Your task to perform on an android device: change text size in settings app Image 0: 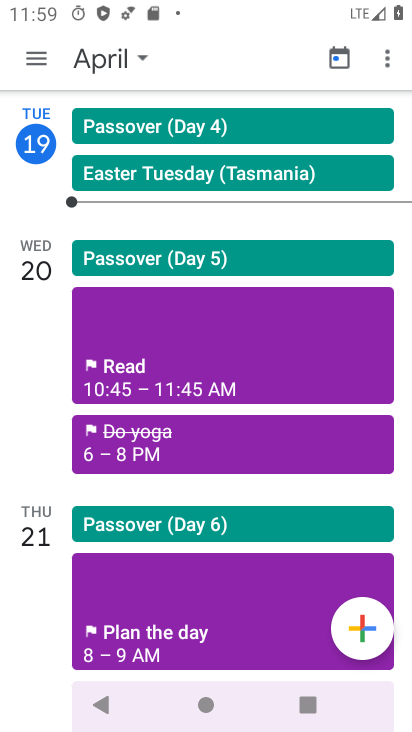
Step 0: drag from (210, 595) to (152, 30)
Your task to perform on an android device: change text size in settings app Image 1: 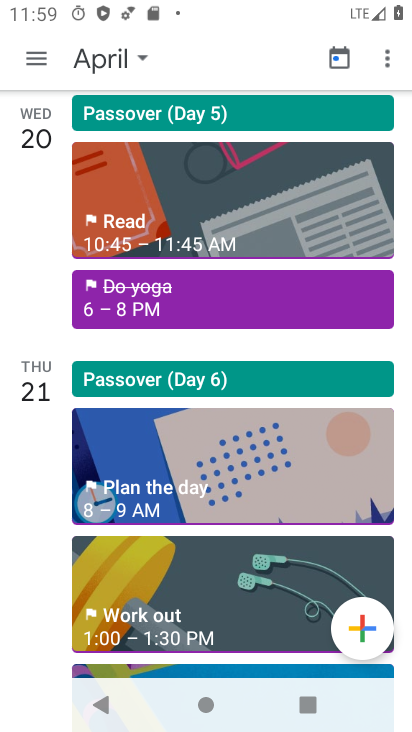
Step 1: press home button
Your task to perform on an android device: change text size in settings app Image 2: 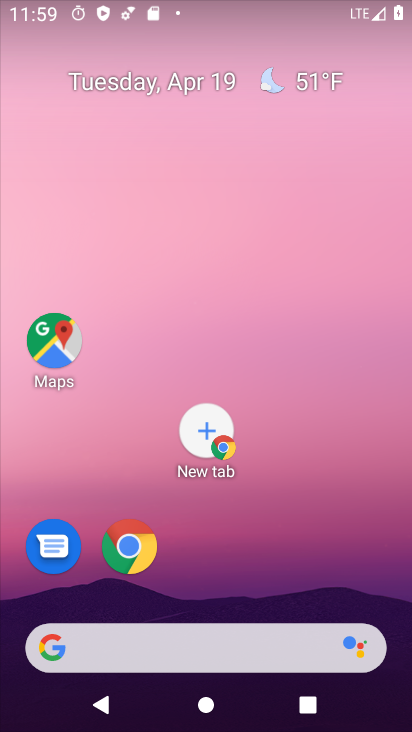
Step 2: drag from (316, 598) to (237, 14)
Your task to perform on an android device: change text size in settings app Image 3: 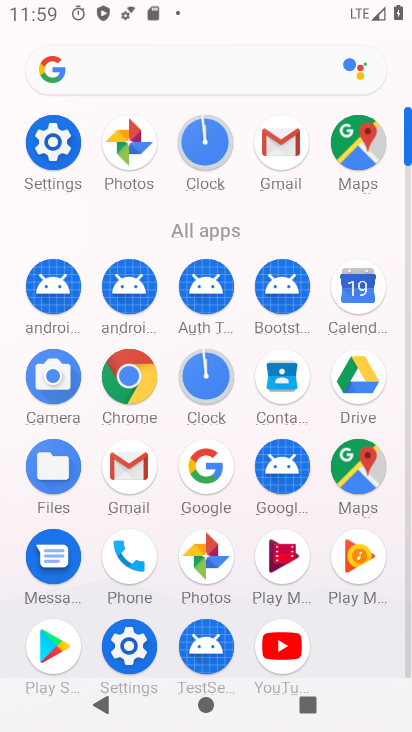
Step 3: click (69, 139)
Your task to perform on an android device: change text size in settings app Image 4: 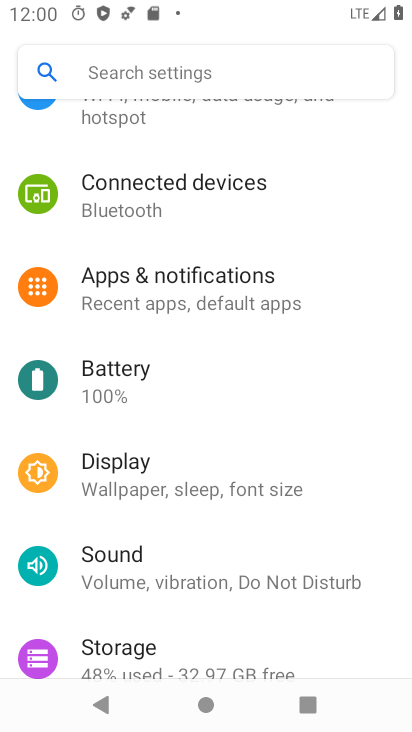
Step 4: drag from (258, 208) to (231, 729)
Your task to perform on an android device: change text size in settings app Image 5: 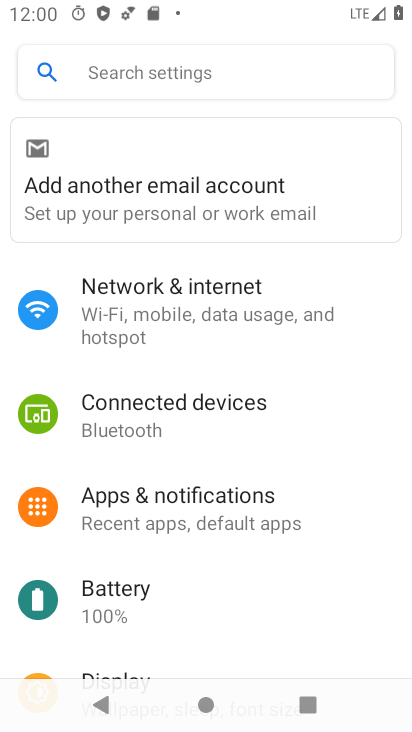
Step 5: drag from (155, 563) to (118, 138)
Your task to perform on an android device: change text size in settings app Image 6: 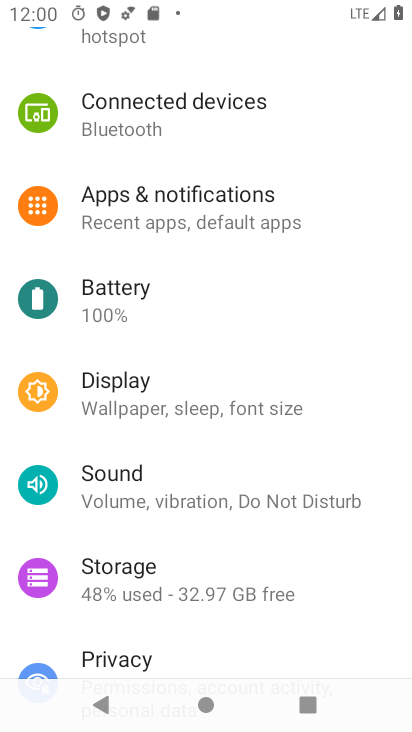
Step 6: click (236, 407)
Your task to perform on an android device: change text size in settings app Image 7: 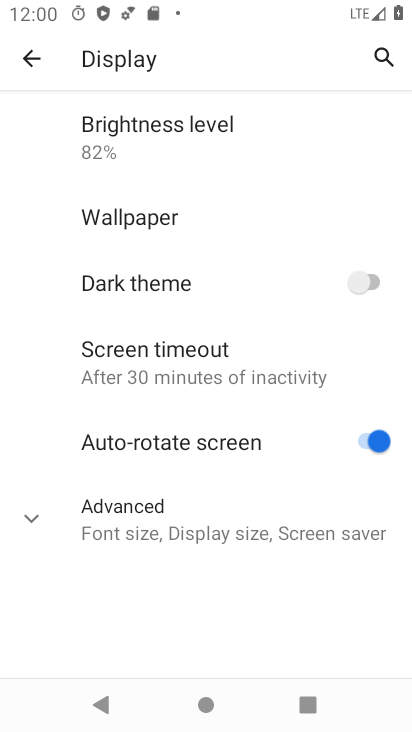
Step 7: click (22, 57)
Your task to perform on an android device: change text size in settings app Image 8: 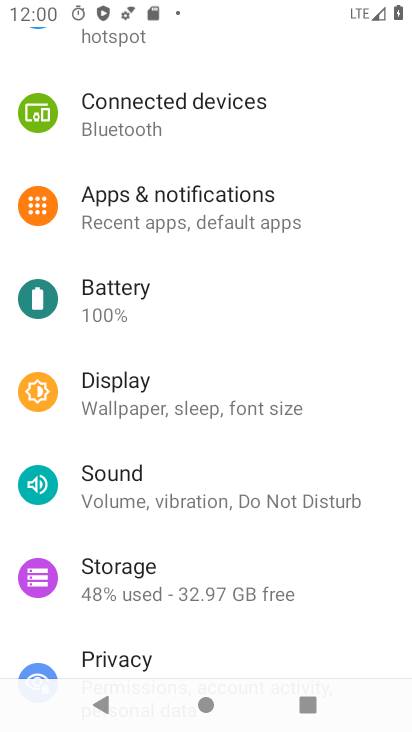
Step 8: click (145, 402)
Your task to perform on an android device: change text size in settings app Image 9: 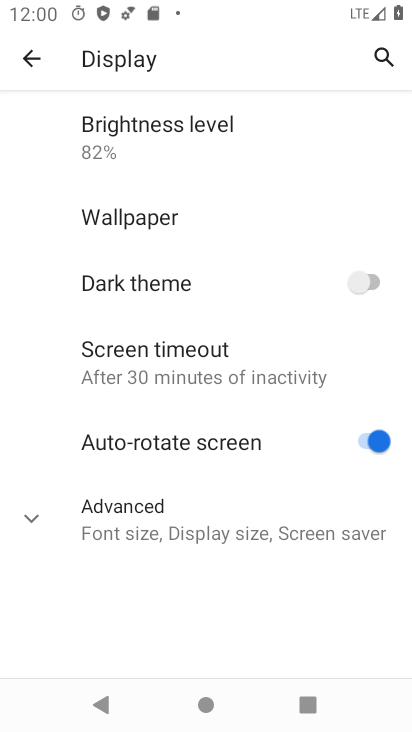
Step 9: click (188, 521)
Your task to perform on an android device: change text size in settings app Image 10: 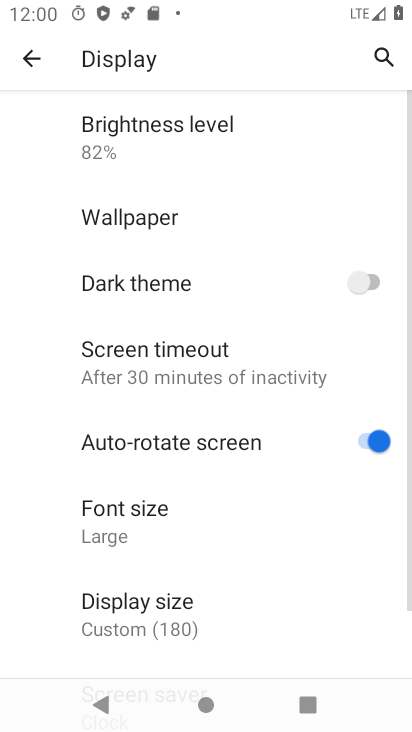
Step 10: click (188, 521)
Your task to perform on an android device: change text size in settings app Image 11: 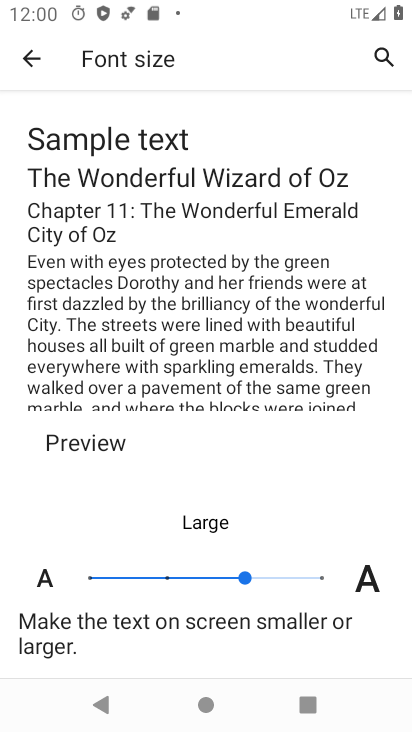
Step 11: click (91, 581)
Your task to perform on an android device: change text size in settings app Image 12: 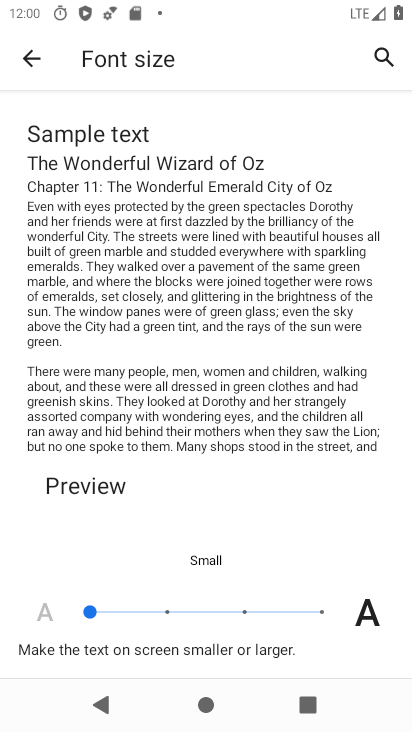
Step 12: task complete